Your task to perform on an android device: Find coffee shops on Maps Image 0: 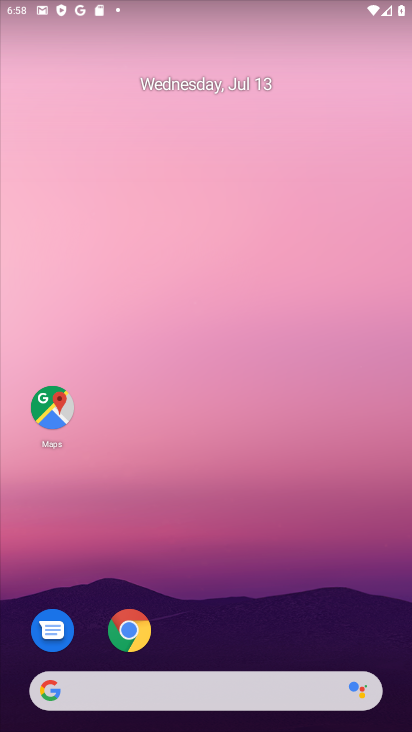
Step 0: drag from (399, 664) to (307, 69)
Your task to perform on an android device: Find coffee shops on Maps Image 1: 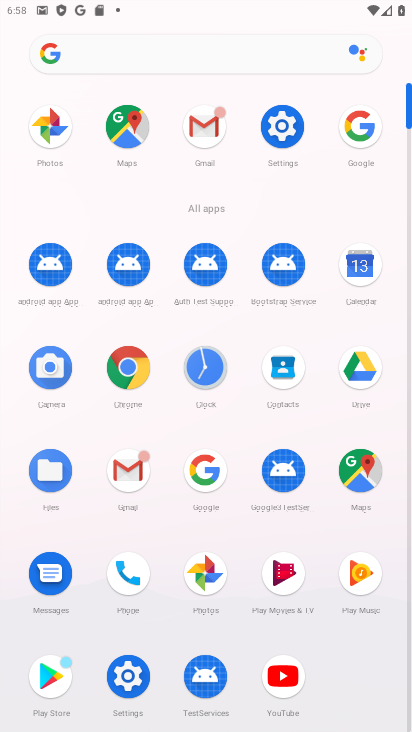
Step 1: click (116, 123)
Your task to perform on an android device: Find coffee shops on Maps Image 2: 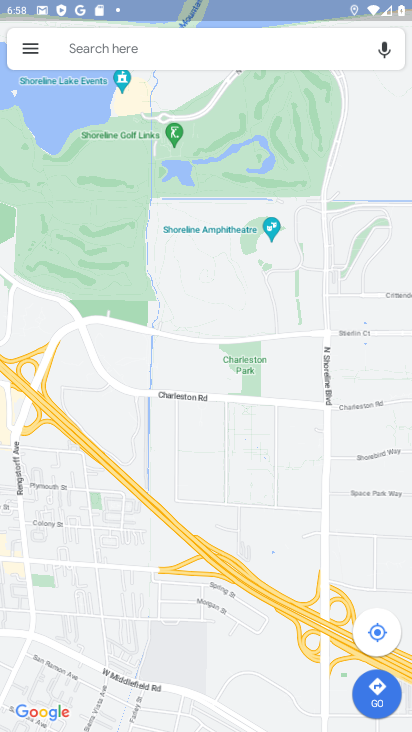
Step 2: click (127, 47)
Your task to perform on an android device: Find coffee shops on Maps Image 3: 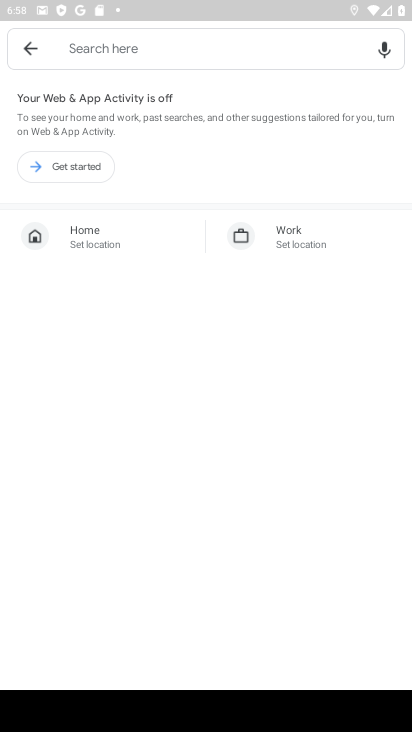
Step 3: click (82, 161)
Your task to perform on an android device: Find coffee shops on Maps Image 4: 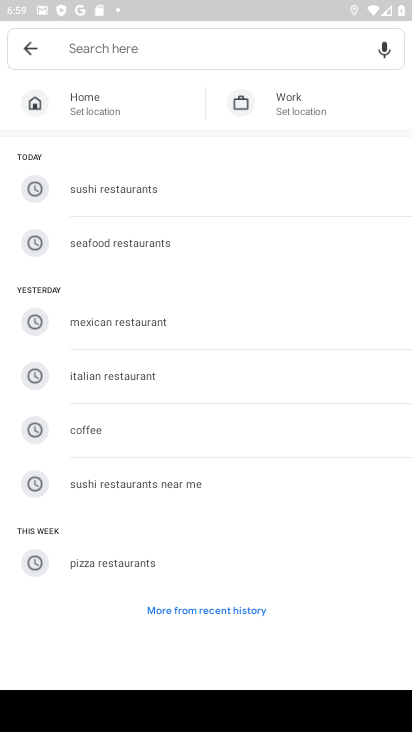
Step 4: type "coffee shops"
Your task to perform on an android device: Find coffee shops on Maps Image 5: 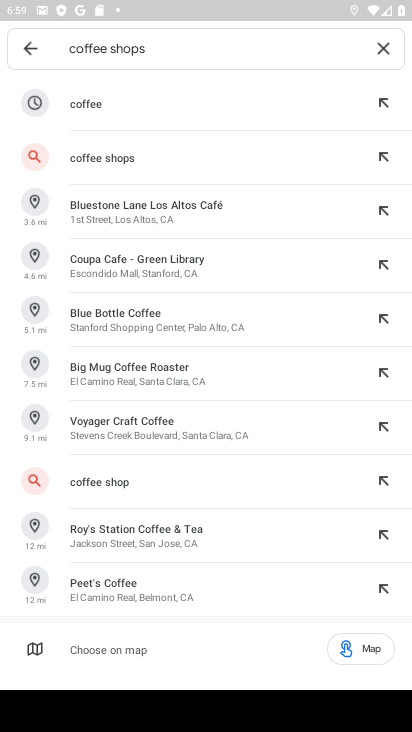
Step 5: click (99, 163)
Your task to perform on an android device: Find coffee shops on Maps Image 6: 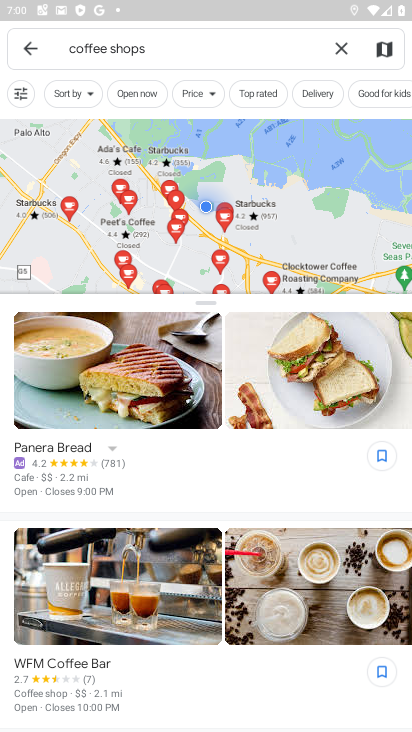
Step 6: task complete